Your task to perform on an android device: Is it going to rain this weekend? Image 0: 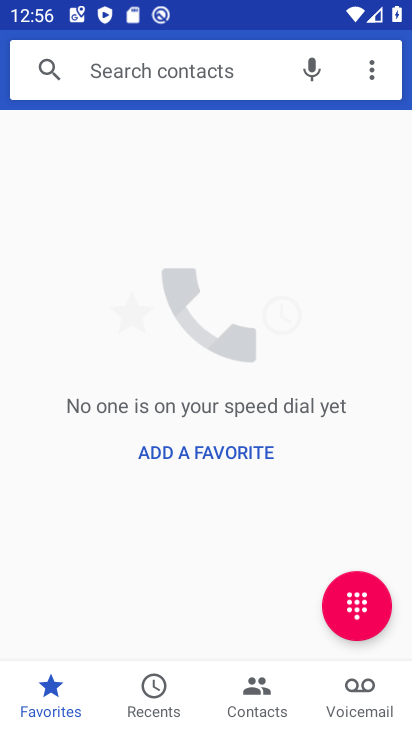
Step 0: press home button
Your task to perform on an android device: Is it going to rain this weekend? Image 1: 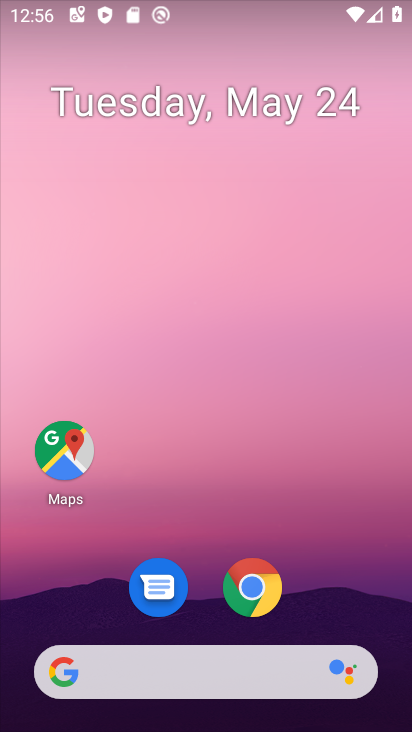
Step 1: click (201, 665)
Your task to perform on an android device: Is it going to rain this weekend? Image 2: 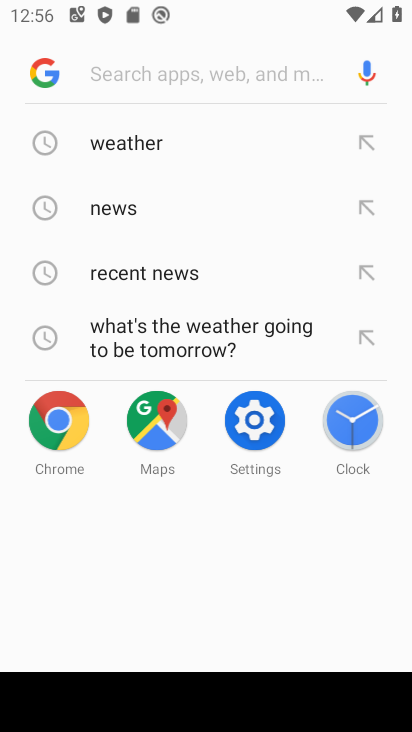
Step 2: click (176, 152)
Your task to perform on an android device: Is it going to rain this weekend? Image 3: 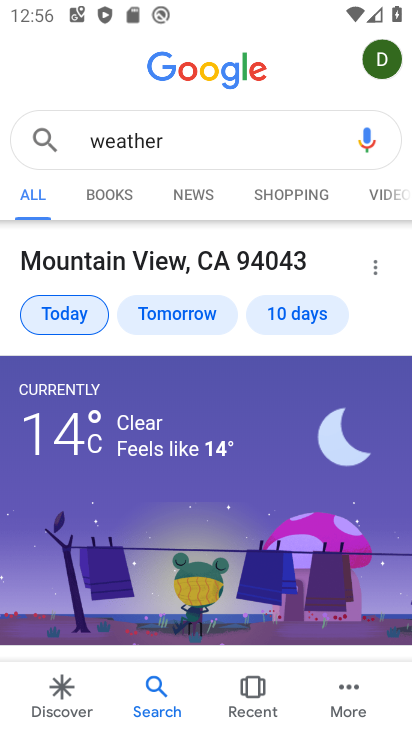
Step 3: click (220, 315)
Your task to perform on an android device: Is it going to rain this weekend? Image 4: 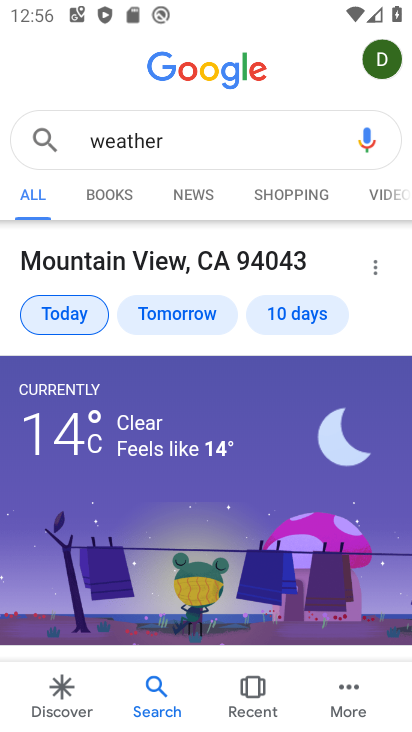
Step 4: click (317, 310)
Your task to perform on an android device: Is it going to rain this weekend? Image 5: 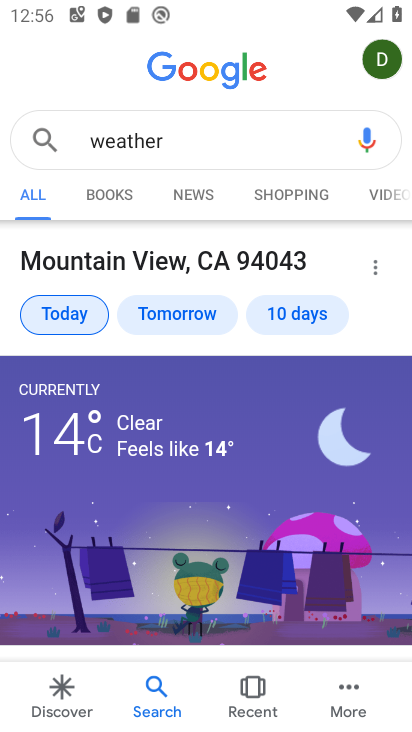
Step 5: click (317, 310)
Your task to perform on an android device: Is it going to rain this weekend? Image 6: 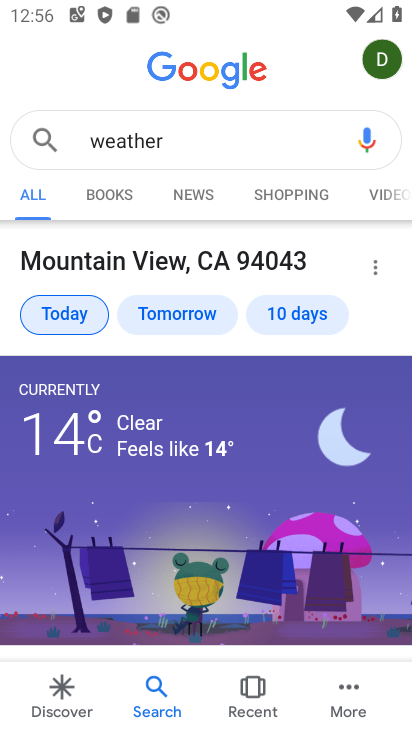
Step 6: click (317, 310)
Your task to perform on an android device: Is it going to rain this weekend? Image 7: 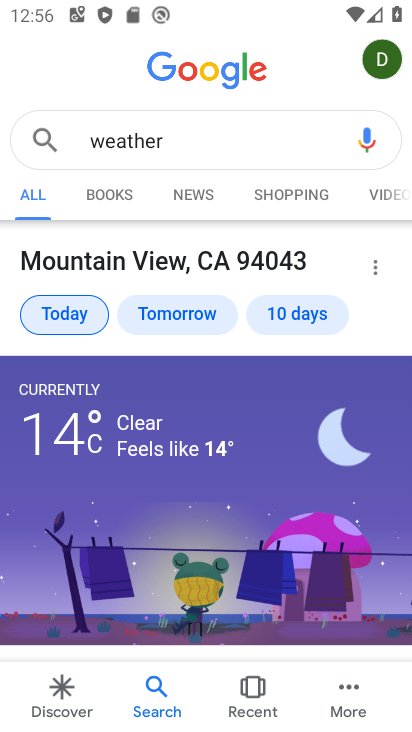
Step 7: click (303, 316)
Your task to perform on an android device: Is it going to rain this weekend? Image 8: 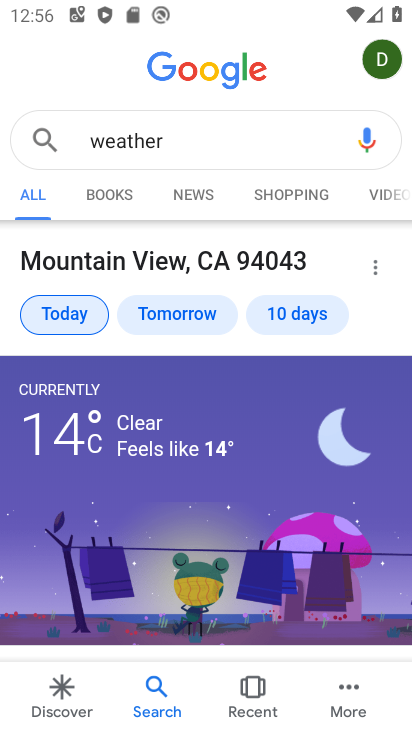
Step 8: click (303, 316)
Your task to perform on an android device: Is it going to rain this weekend? Image 9: 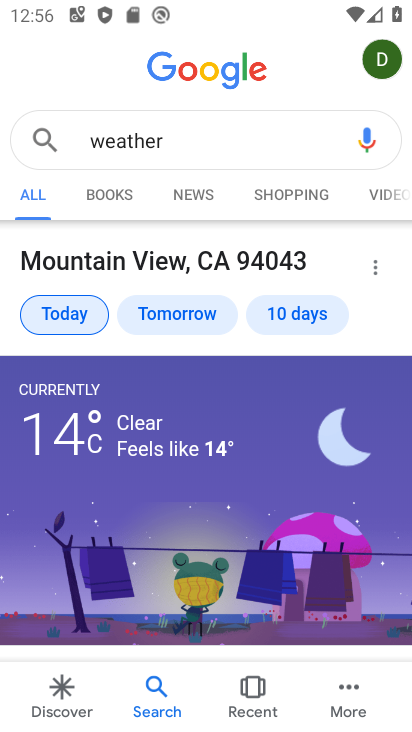
Step 9: click (303, 316)
Your task to perform on an android device: Is it going to rain this weekend? Image 10: 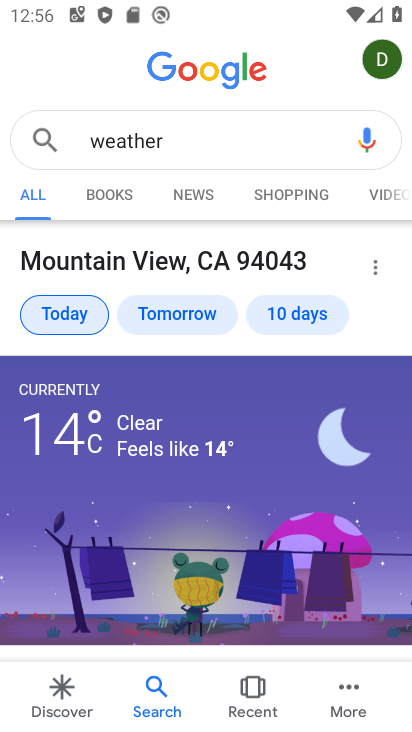
Step 10: click (303, 316)
Your task to perform on an android device: Is it going to rain this weekend? Image 11: 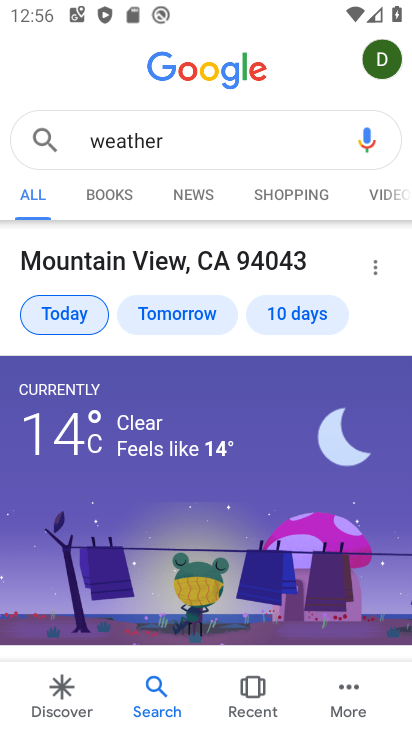
Step 11: task complete